Your task to perform on an android device: Open Google Image 0: 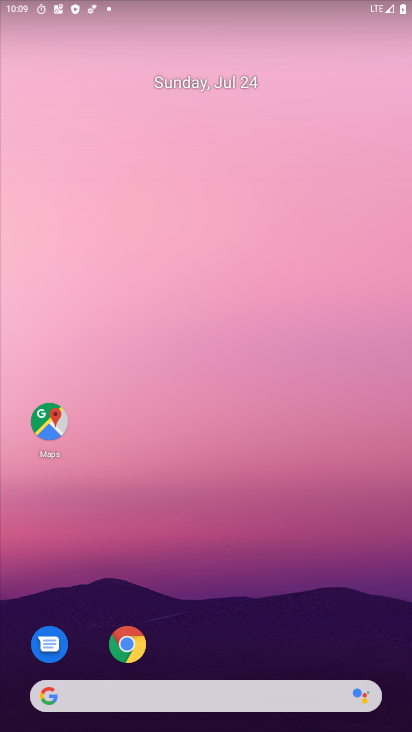
Step 0: drag from (235, 687) to (295, 159)
Your task to perform on an android device: Open Google Image 1: 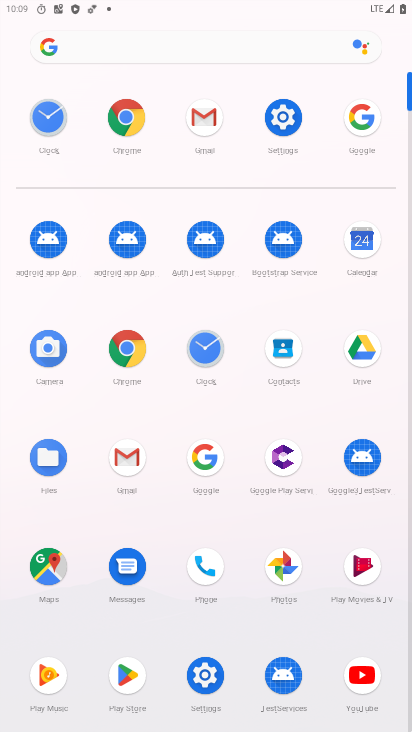
Step 1: click (205, 457)
Your task to perform on an android device: Open Google Image 2: 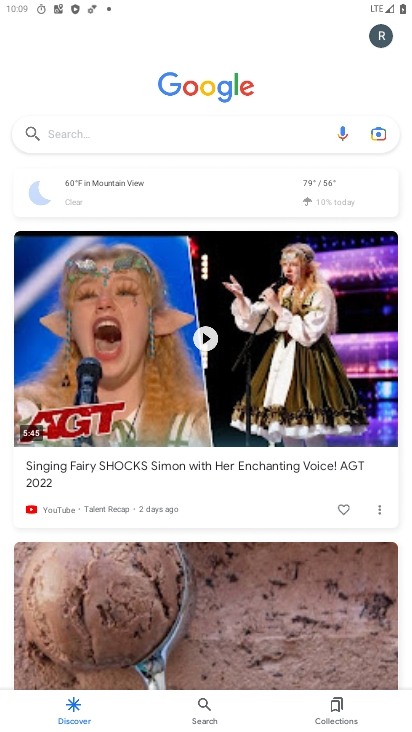
Step 2: task complete